Your task to perform on an android device: Go to Android settings Image 0: 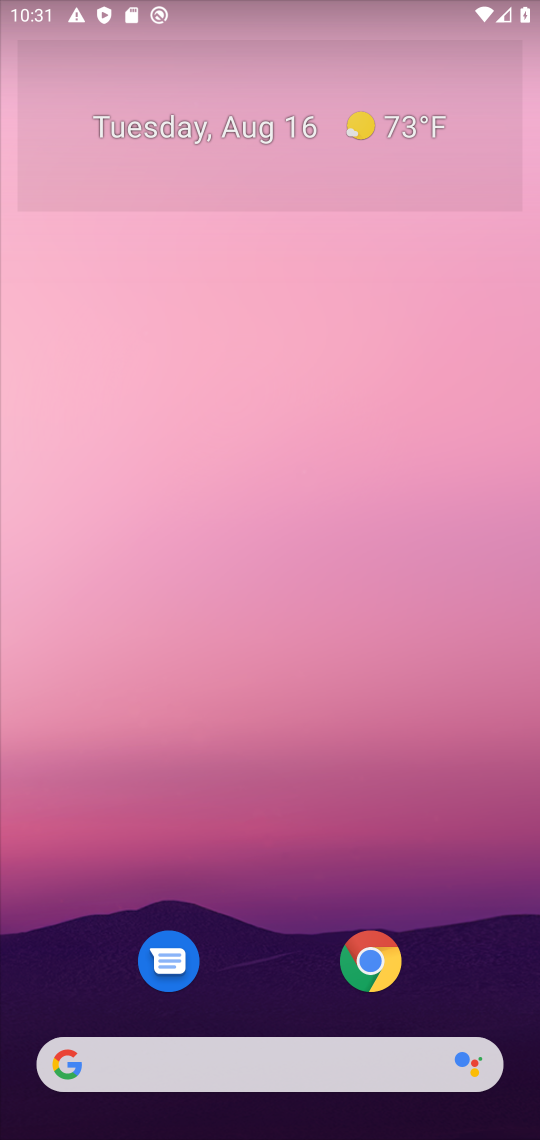
Step 0: drag from (256, 864) to (385, 346)
Your task to perform on an android device: Go to Android settings Image 1: 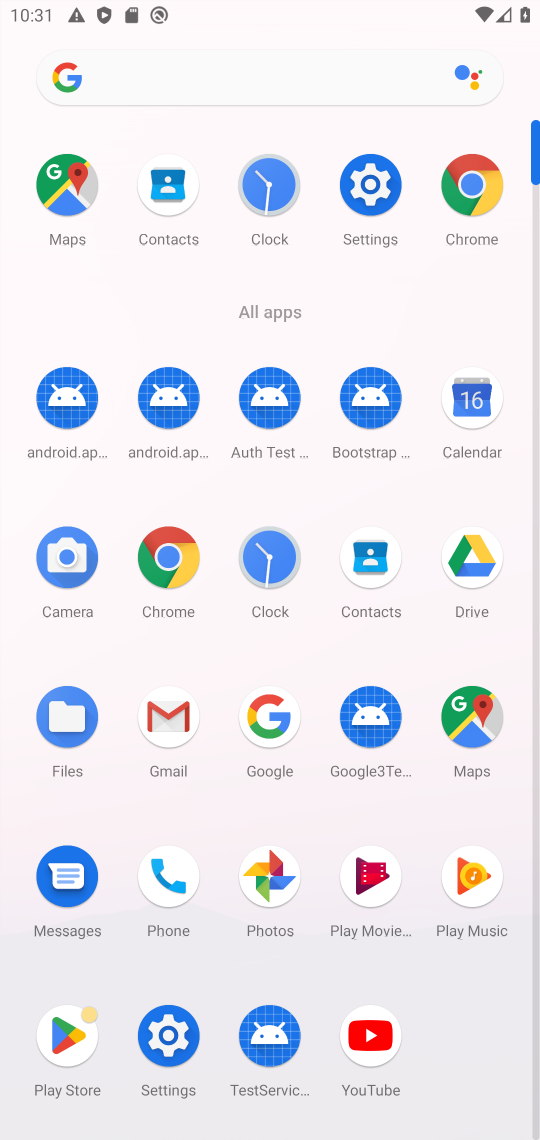
Step 1: click (371, 186)
Your task to perform on an android device: Go to Android settings Image 2: 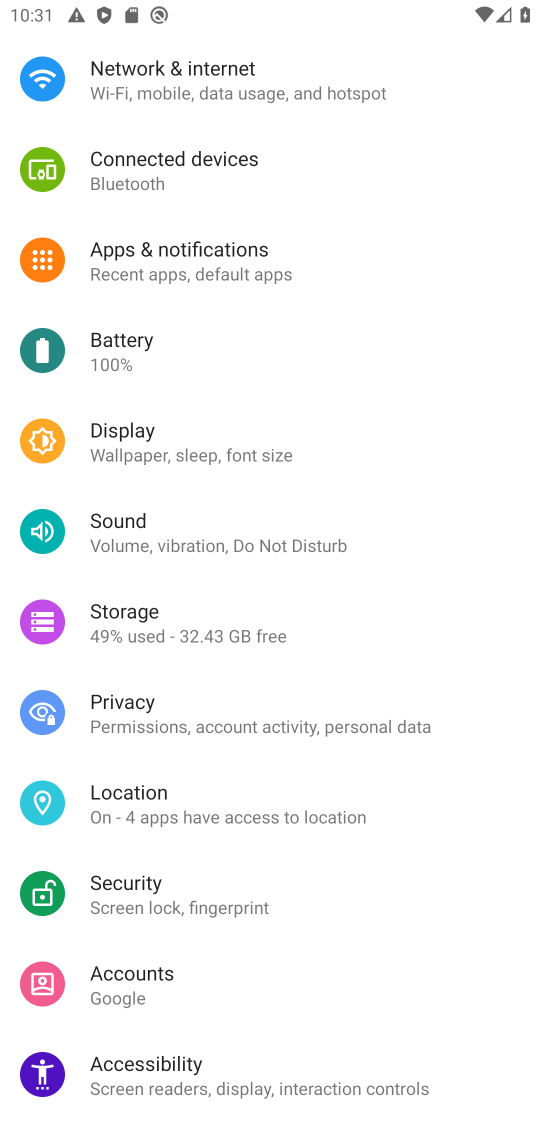
Step 2: task complete